Your task to perform on an android device: Go to network settings Image 0: 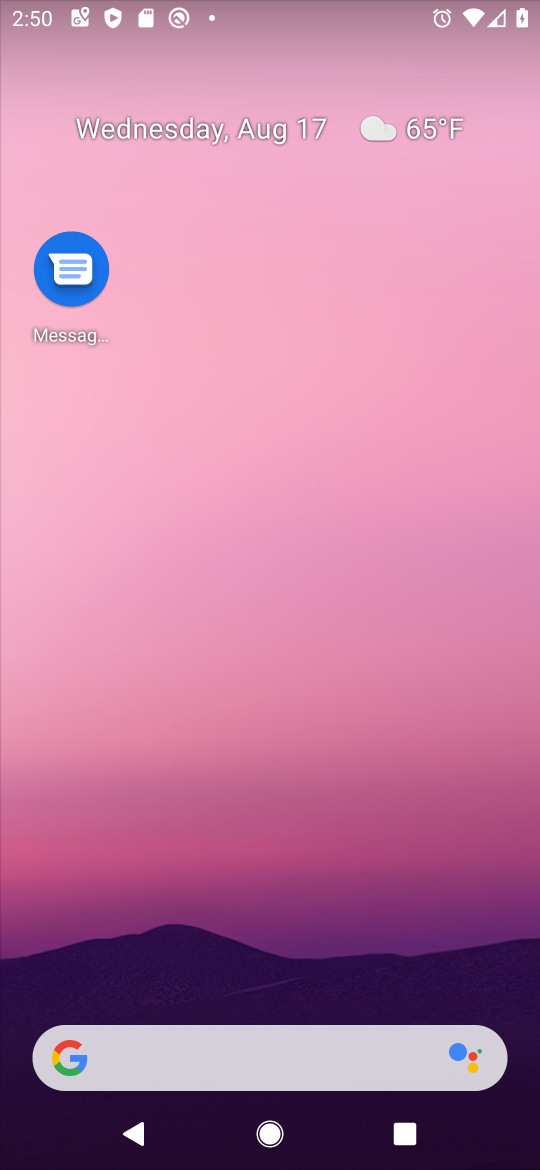
Step 0: drag from (263, 982) to (285, 8)
Your task to perform on an android device: Go to network settings Image 1: 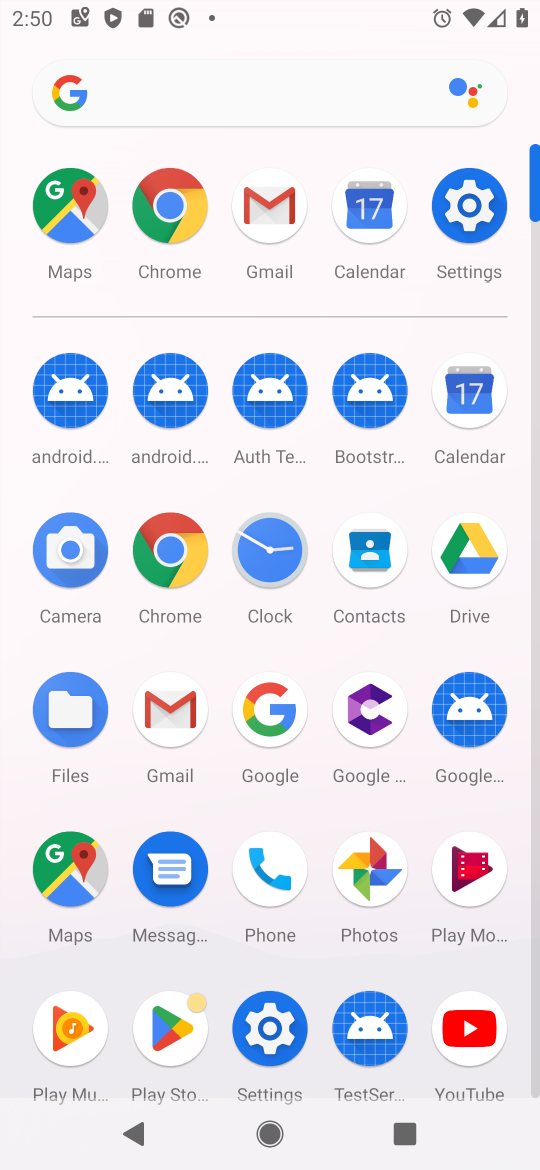
Step 1: click (463, 219)
Your task to perform on an android device: Go to network settings Image 2: 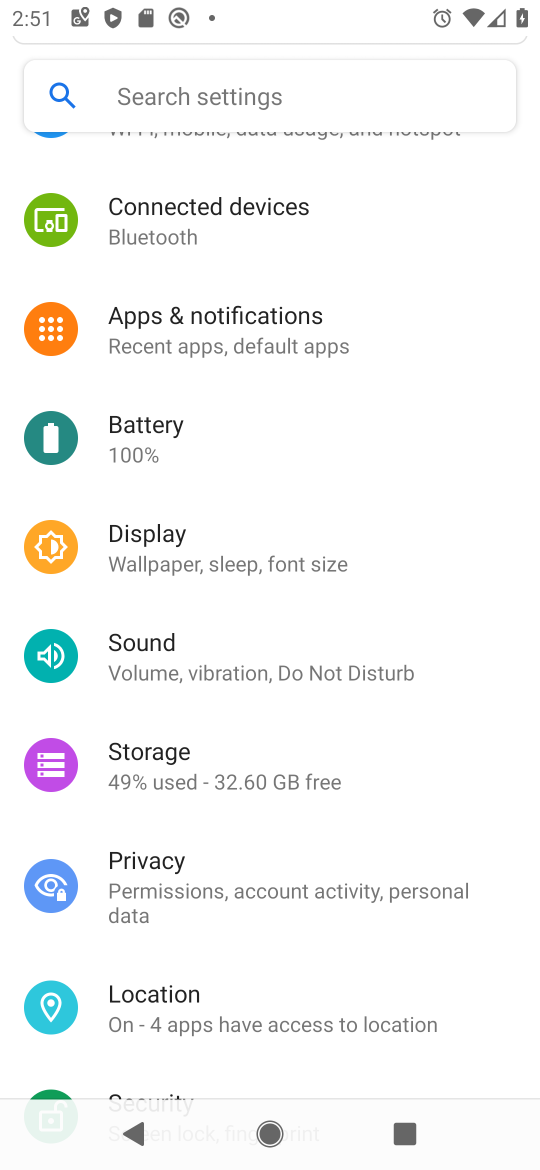
Step 2: drag from (196, 252) to (156, 940)
Your task to perform on an android device: Go to network settings Image 3: 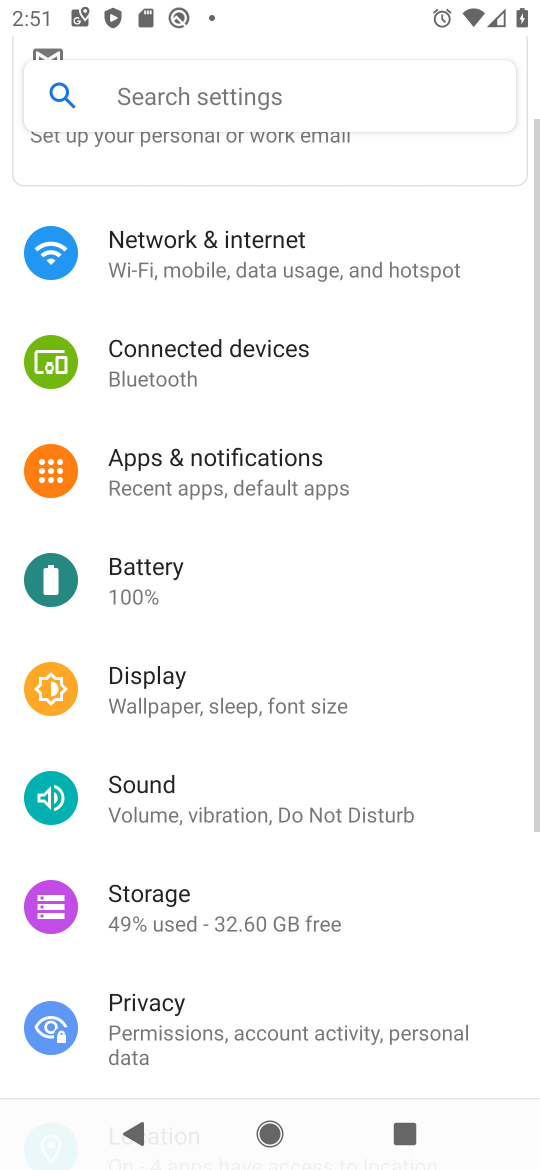
Step 3: click (230, 242)
Your task to perform on an android device: Go to network settings Image 4: 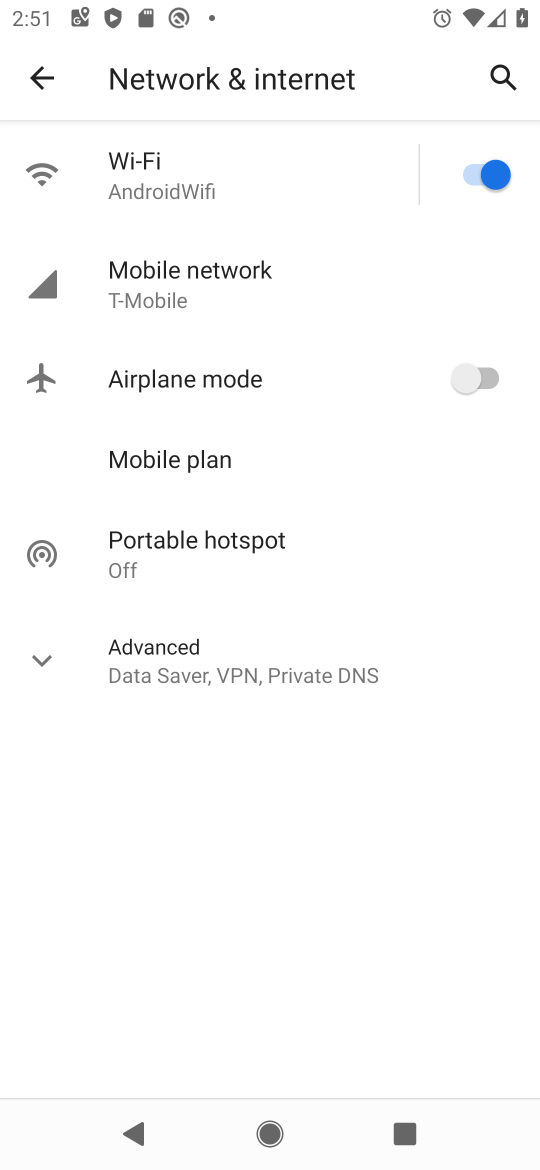
Step 4: click (205, 269)
Your task to perform on an android device: Go to network settings Image 5: 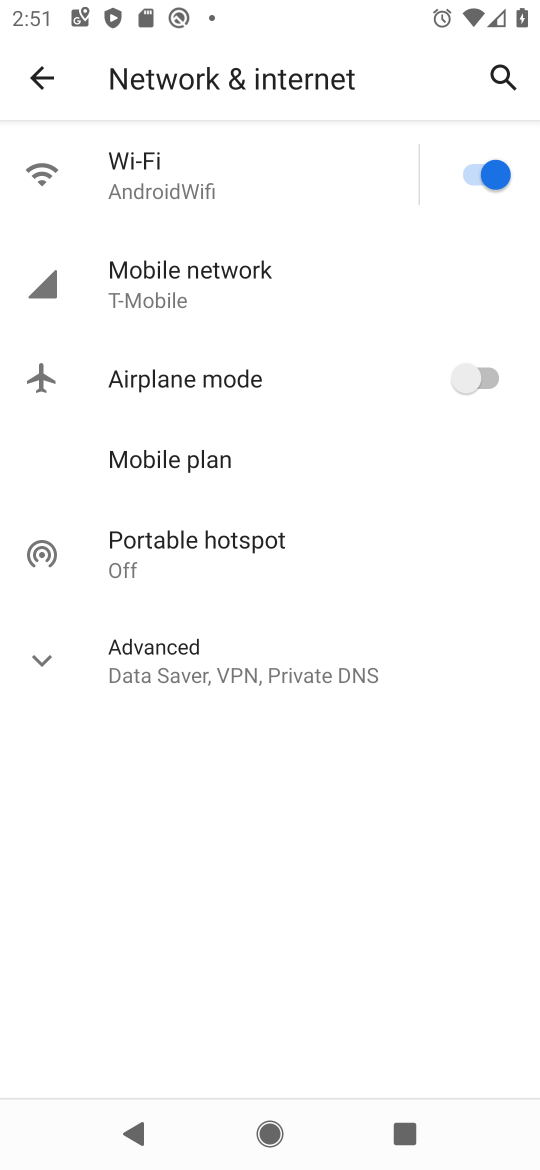
Step 5: task complete